Your task to perform on an android device: Go to Amazon Image 0: 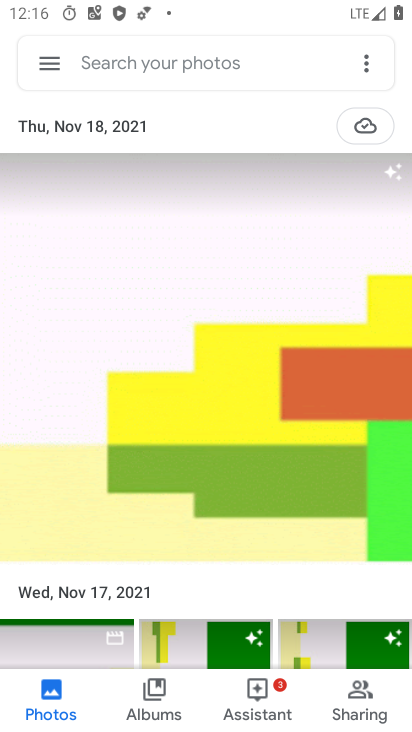
Step 0: press home button
Your task to perform on an android device: Go to Amazon Image 1: 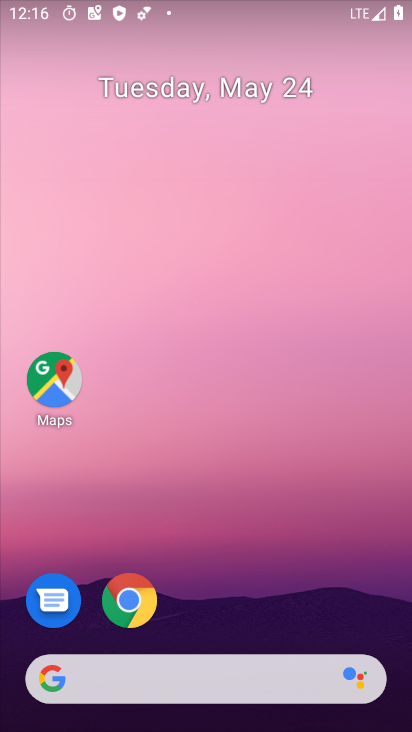
Step 1: click (126, 606)
Your task to perform on an android device: Go to Amazon Image 2: 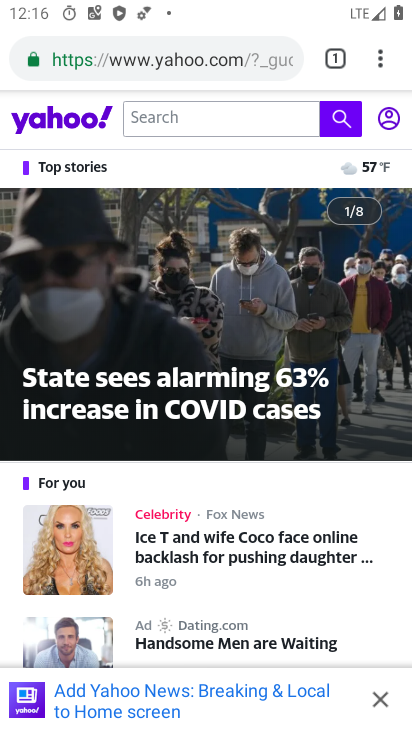
Step 2: click (180, 56)
Your task to perform on an android device: Go to Amazon Image 3: 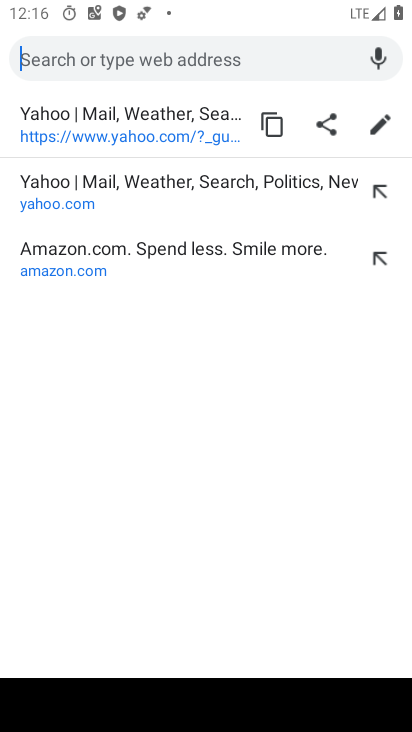
Step 3: click (85, 274)
Your task to perform on an android device: Go to Amazon Image 4: 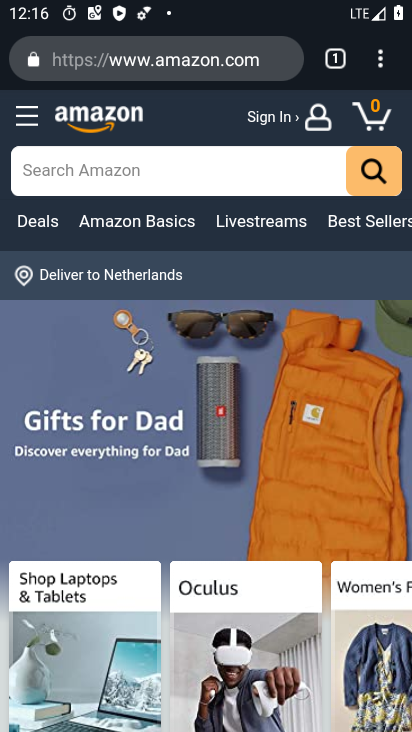
Step 4: task complete